Your task to perform on an android device: View the shopping cart on newegg.com. Add razer huntsman to the cart on newegg.com, then select checkout. Image 0: 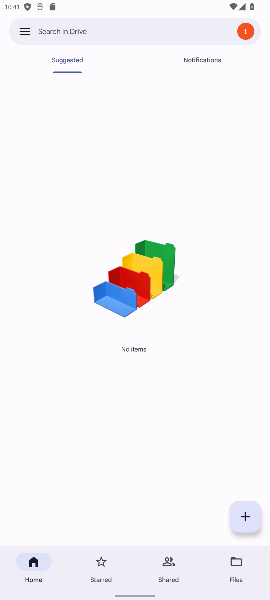
Step 0: press home button
Your task to perform on an android device: View the shopping cart on newegg.com. Add razer huntsman to the cart on newegg.com, then select checkout. Image 1: 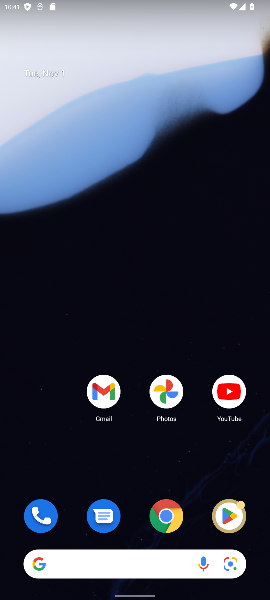
Step 1: click (166, 525)
Your task to perform on an android device: View the shopping cart on newegg.com. Add razer huntsman to the cart on newegg.com, then select checkout. Image 2: 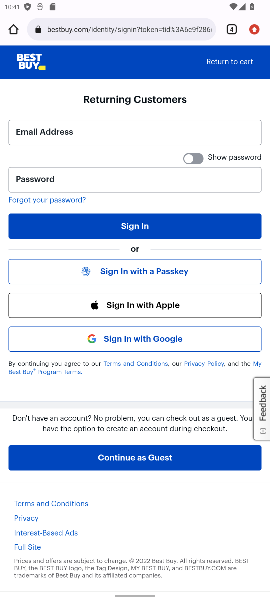
Step 2: click (232, 31)
Your task to perform on an android device: View the shopping cart on newegg.com. Add razer huntsman to the cart on newegg.com, then select checkout. Image 3: 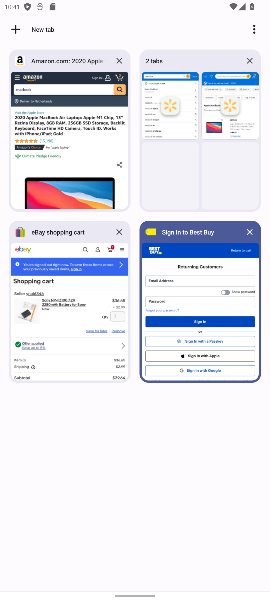
Step 3: click (15, 28)
Your task to perform on an android device: View the shopping cart on newegg.com. Add razer huntsman to the cart on newegg.com, then select checkout. Image 4: 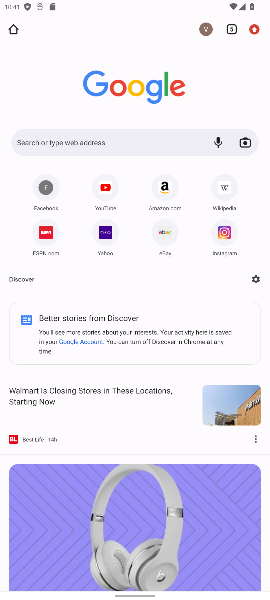
Step 4: click (150, 142)
Your task to perform on an android device: View the shopping cart on newegg.com. Add razer huntsman to the cart on newegg.com, then select checkout. Image 5: 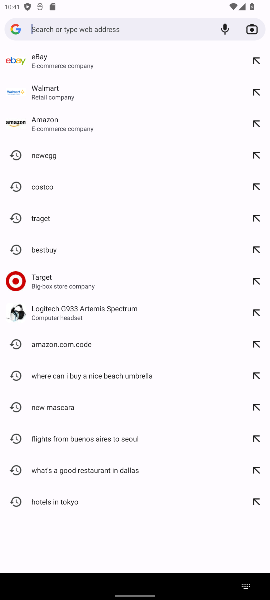
Step 5: type "newegg"
Your task to perform on an android device: View the shopping cart on newegg.com. Add razer huntsman to the cart on newegg.com, then select checkout. Image 6: 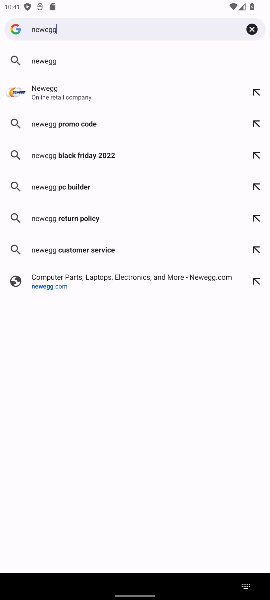
Step 6: click (46, 92)
Your task to perform on an android device: View the shopping cart on newegg.com. Add razer huntsman to the cart on newegg.com, then select checkout. Image 7: 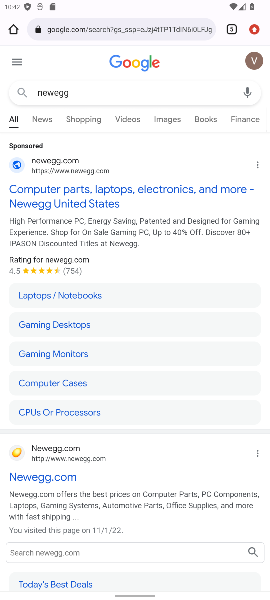
Step 7: click (64, 547)
Your task to perform on an android device: View the shopping cart on newegg.com. Add razer huntsman to the cart on newegg.com, then select checkout. Image 8: 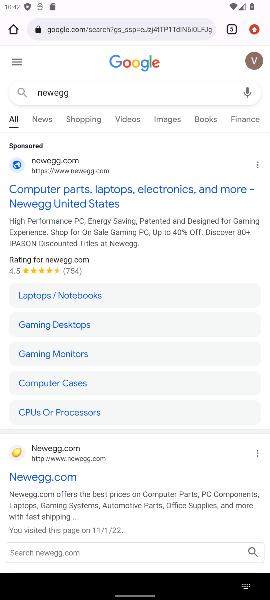
Step 8: type "razer huntsman"
Your task to perform on an android device: View the shopping cart on newegg.com. Add razer huntsman to the cart on newegg.com, then select checkout. Image 9: 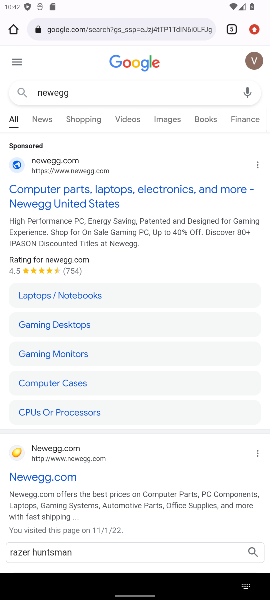
Step 9: click (252, 551)
Your task to perform on an android device: View the shopping cart on newegg.com. Add razer huntsman to the cart on newegg.com, then select checkout. Image 10: 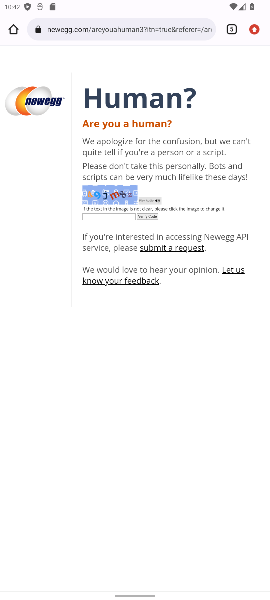
Step 10: click (114, 218)
Your task to perform on an android device: View the shopping cart on newegg.com. Add razer huntsman to the cart on newegg.com, then select checkout. Image 11: 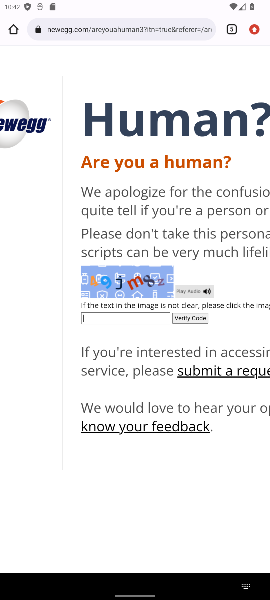
Step 11: click (120, 322)
Your task to perform on an android device: View the shopping cart on newegg.com. Add razer huntsman to the cart on newegg.com, then select checkout. Image 12: 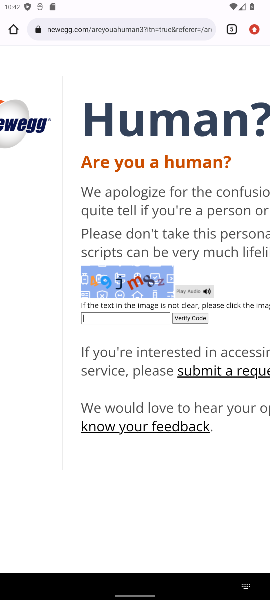
Step 12: type "tgjmgz"
Your task to perform on an android device: View the shopping cart on newegg.com. Add razer huntsman to the cart on newegg.com, then select checkout. Image 13: 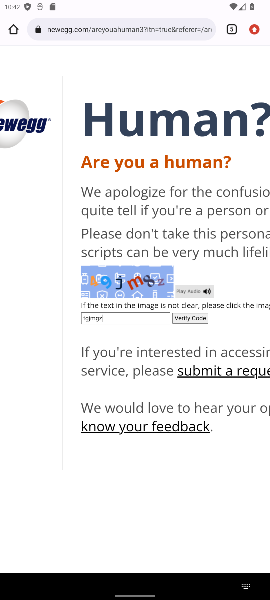
Step 13: click (191, 322)
Your task to perform on an android device: View the shopping cart on newegg.com. Add razer huntsman to the cart on newegg.com, then select checkout. Image 14: 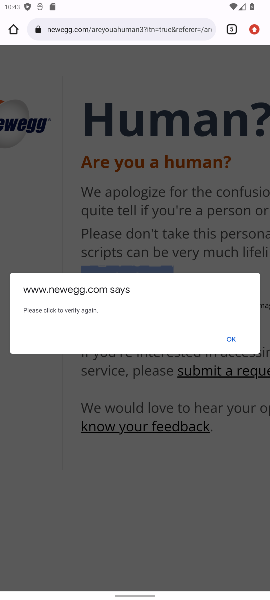
Step 14: click (231, 339)
Your task to perform on an android device: View the shopping cart on newegg.com. Add razer huntsman to the cart on newegg.com, then select checkout. Image 15: 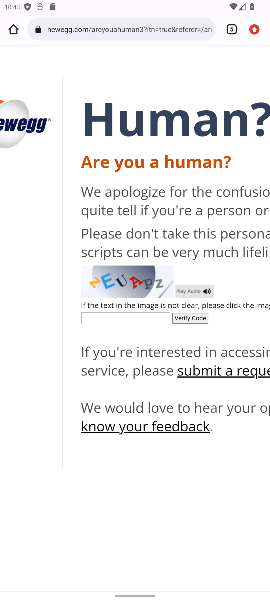
Step 15: click (139, 322)
Your task to perform on an android device: View the shopping cart on newegg.com. Add razer huntsman to the cart on newegg.com, then select checkout. Image 16: 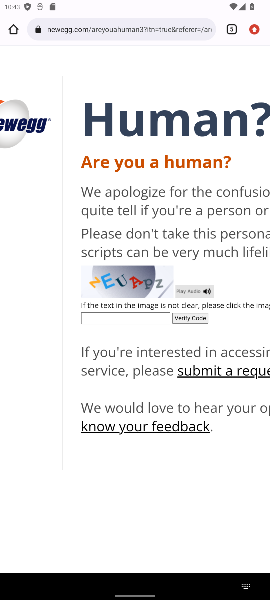
Step 16: type "NEUApz"
Your task to perform on an android device: View the shopping cart on newegg.com. Add razer huntsman to the cart on newegg.com, then select checkout. Image 17: 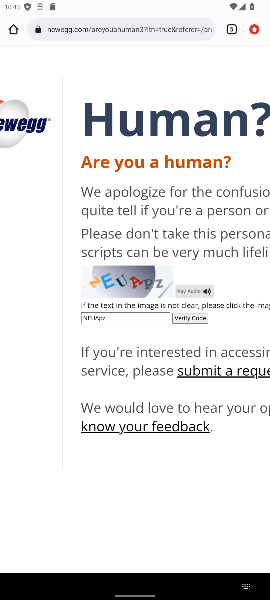
Step 17: click (191, 318)
Your task to perform on an android device: View the shopping cart on newegg.com. Add razer huntsman to the cart on newegg.com, then select checkout. Image 18: 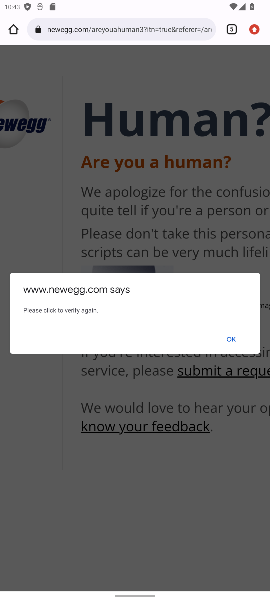
Step 18: click (232, 334)
Your task to perform on an android device: View the shopping cart on newegg.com. Add razer huntsman to the cart on newegg.com, then select checkout. Image 19: 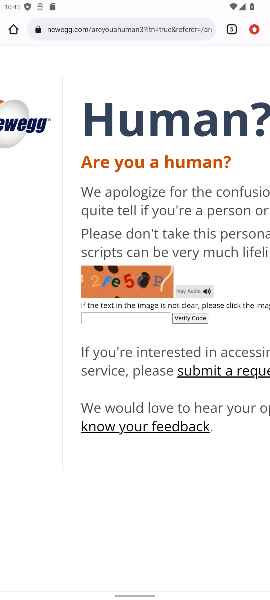
Step 19: task complete